Your task to perform on an android device: check the backup settings in the google photos Image 0: 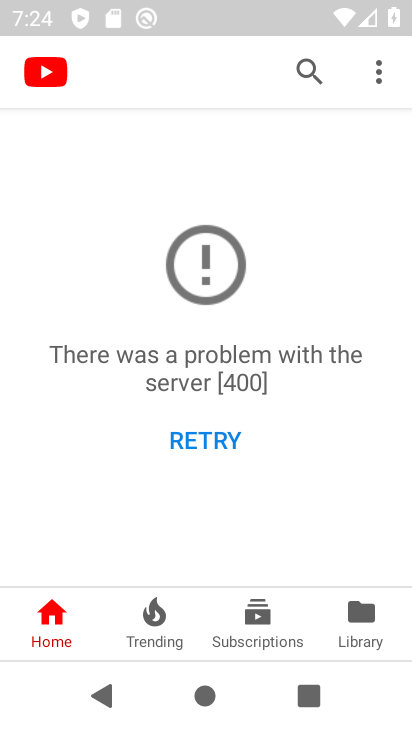
Step 0: press home button
Your task to perform on an android device: check the backup settings in the google photos Image 1: 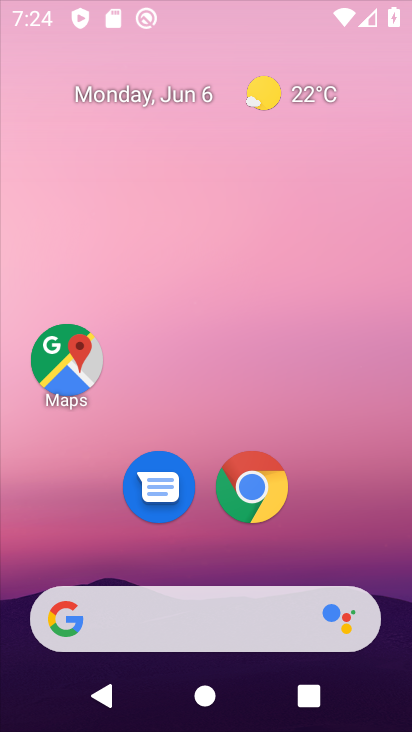
Step 1: drag from (394, 642) to (291, 24)
Your task to perform on an android device: check the backup settings in the google photos Image 2: 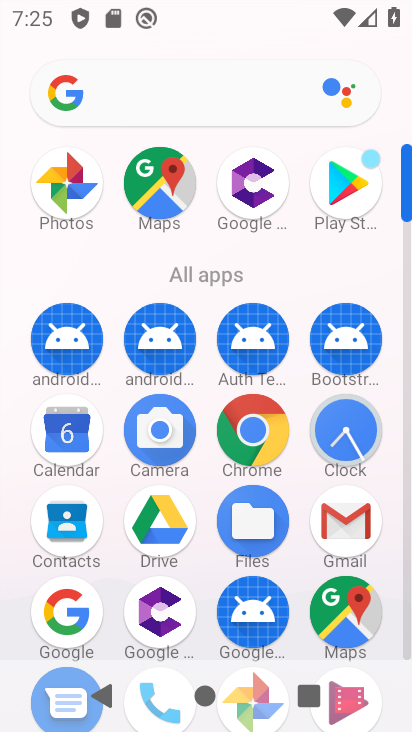
Step 2: drag from (189, 647) to (183, 226)
Your task to perform on an android device: check the backup settings in the google photos Image 3: 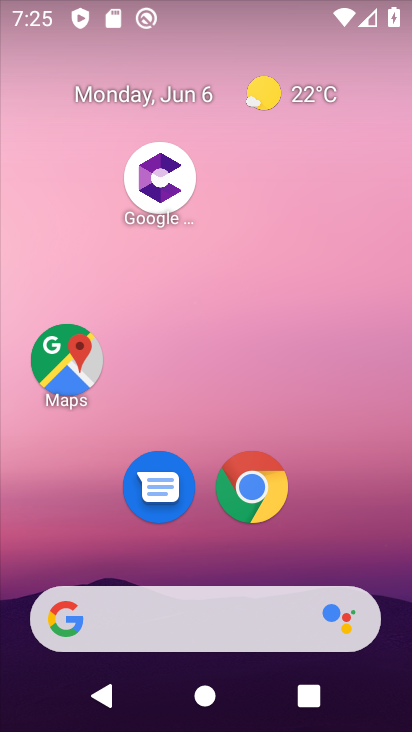
Step 3: drag from (163, 204) to (179, 96)
Your task to perform on an android device: check the backup settings in the google photos Image 4: 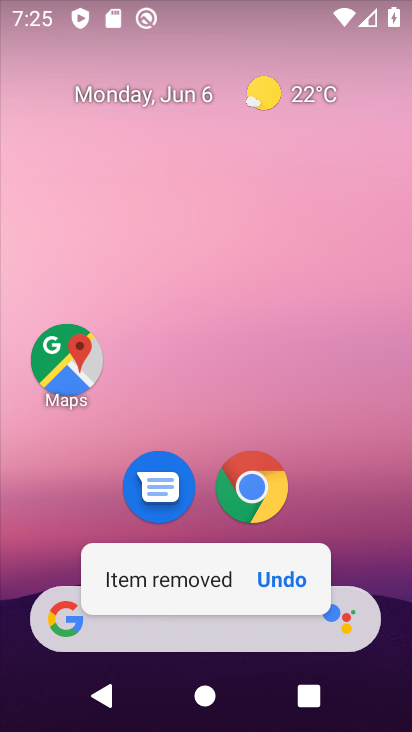
Step 4: drag from (391, 630) to (270, 29)
Your task to perform on an android device: check the backup settings in the google photos Image 5: 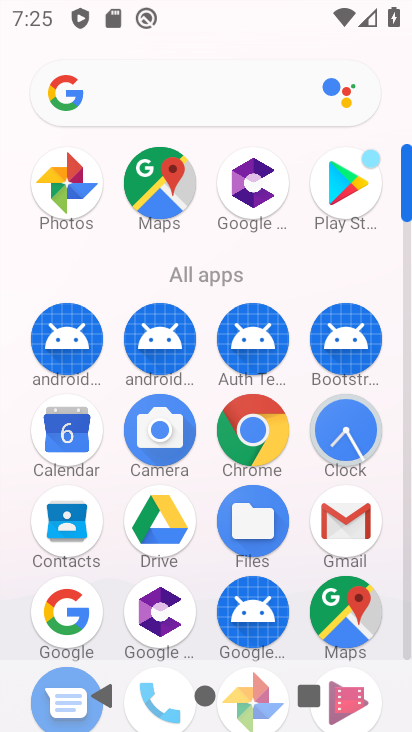
Step 5: drag from (299, 582) to (267, 276)
Your task to perform on an android device: check the backup settings in the google photos Image 6: 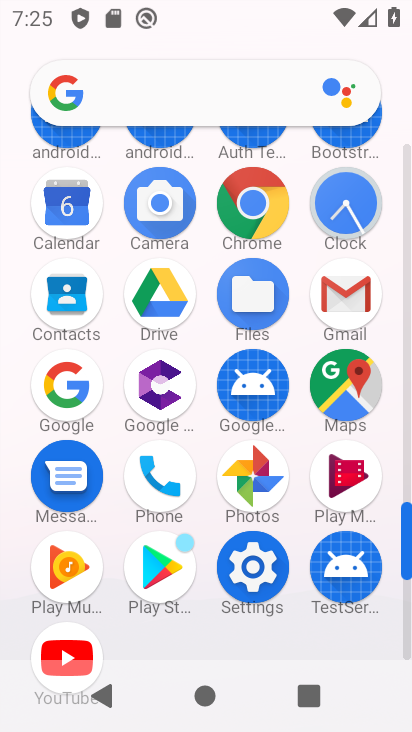
Step 6: click (253, 490)
Your task to perform on an android device: check the backup settings in the google photos Image 7: 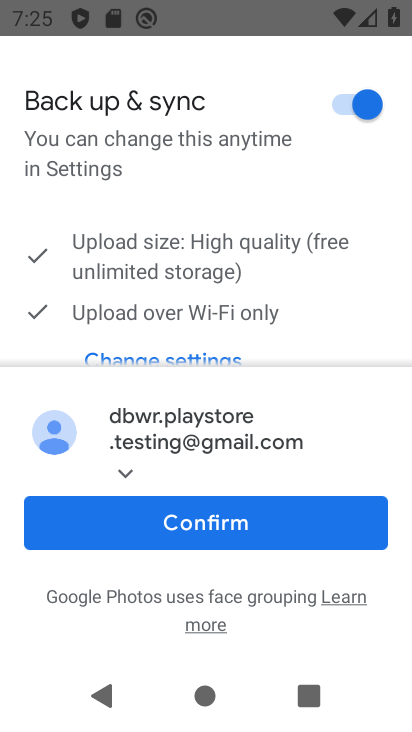
Step 7: click (217, 539)
Your task to perform on an android device: check the backup settings in the google photos Image 8: 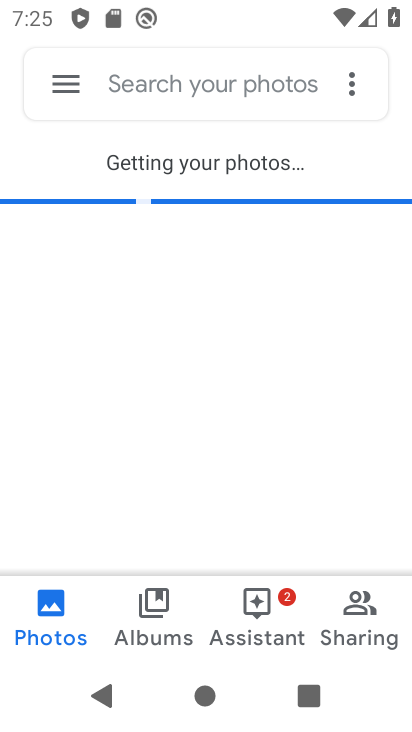
Step 8: click (63, 81)
Your task to perform on an android device: check the backup settings in the google photos Image 9: 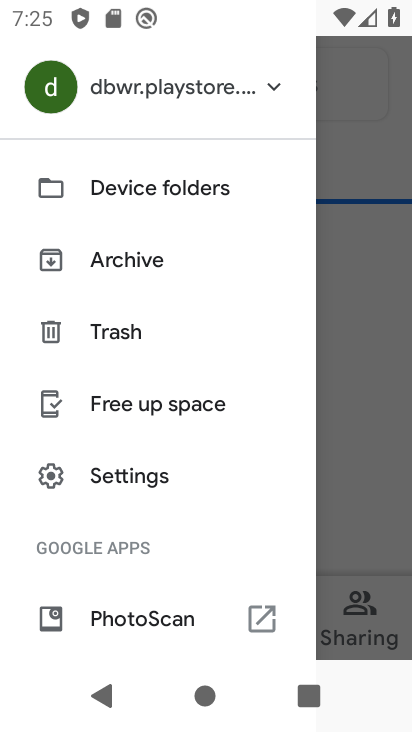
Step 9: click (140, 485)
Your task to perform on an android device: check the backup settings in the google photos Image 10: 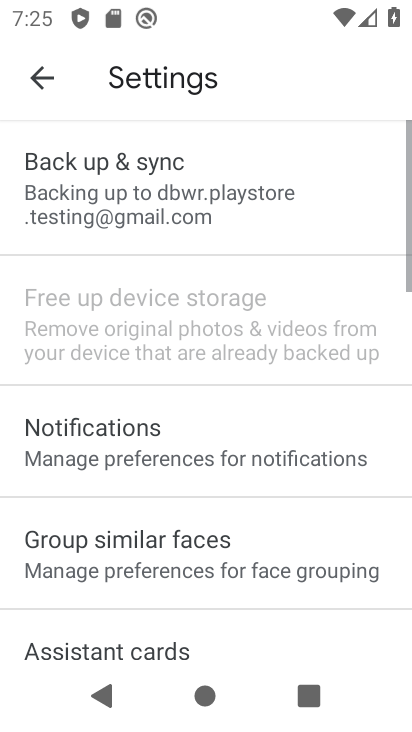
Step 10: click (173, 179)
Your task to perform on an android device: check the backup settings in the google photos Image 11: 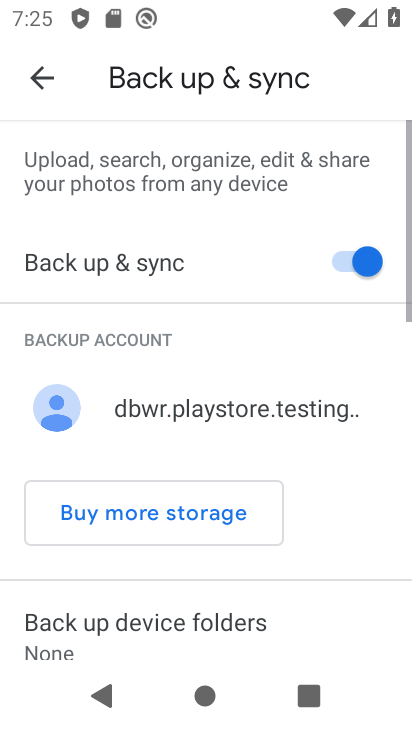
Step 11: task complete